Your task to perform on an android device: Open the stopwatch Image 0: 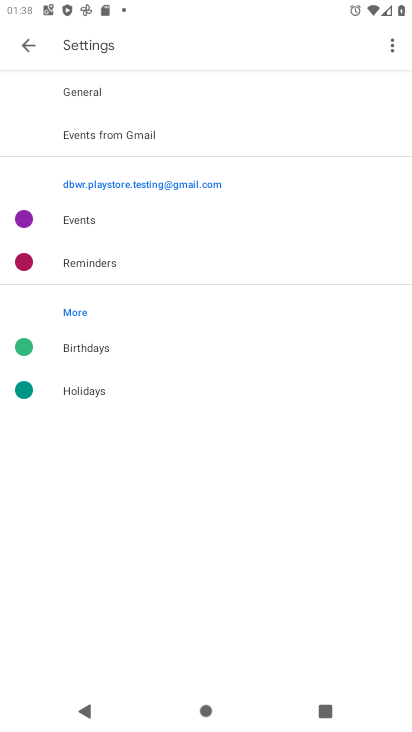
Step 0: press home button
Your task to perform on an android device: Open the stopwatch Image 1: 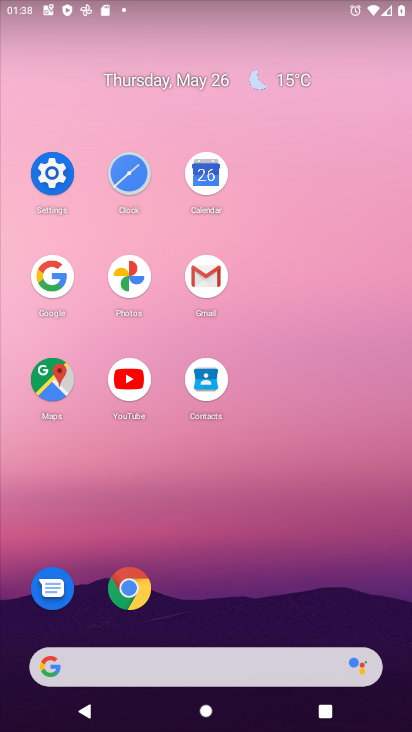
Step 1: click (122, 184)
Your task to perform on an android device: Open the stopwatch Image 2: 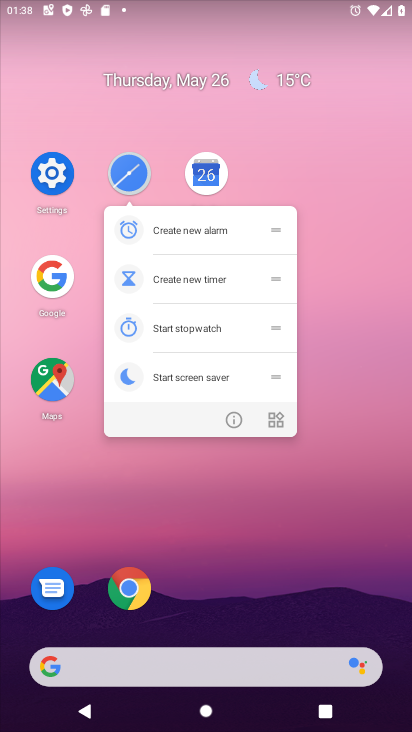
Step 2: click (128, 189)
Your task to perform on an android device: Open the stopwatch Image 3: 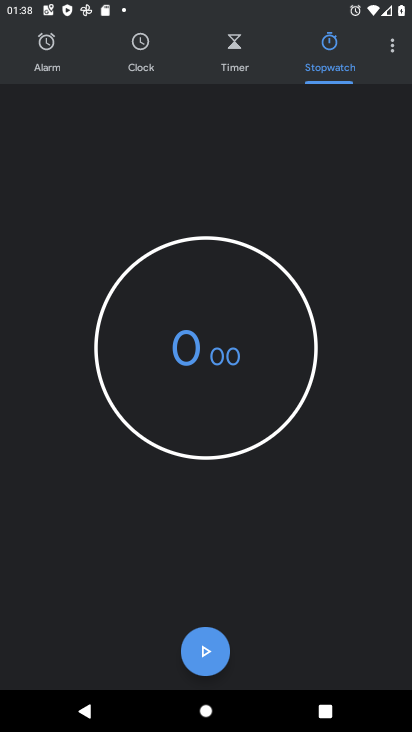
Step 3: task complete